Your task to perform on an android device: What time is it? Image 0: 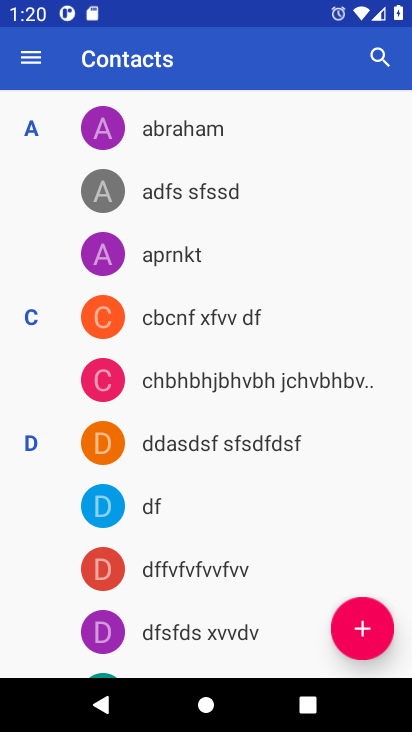
Step 0: press home button
Your task to perform on an android device: What time is it? Image 1: 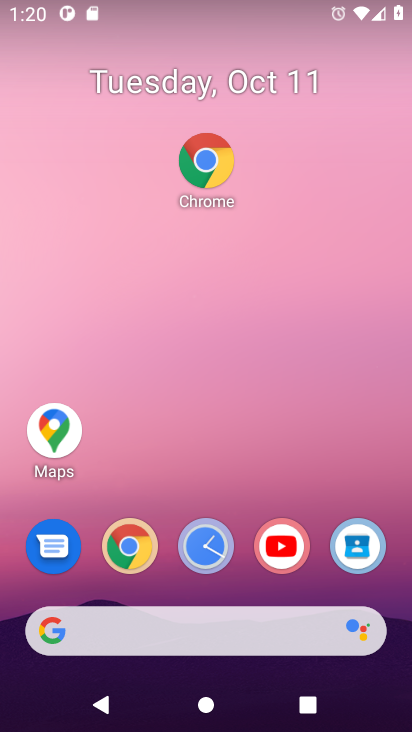
Step 1: drag from (271, 583) to (278, 249)
Your task to perform on an android device: What time is it? Image 2: 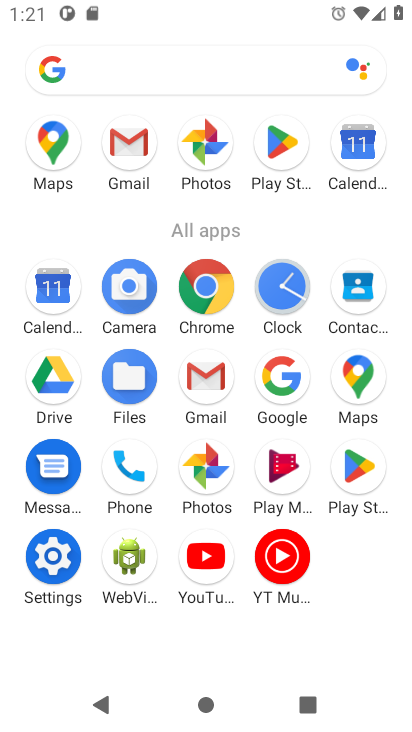
Step 2: click (207, 297)
Your task to perform on an android device: What time is it? Image 3: 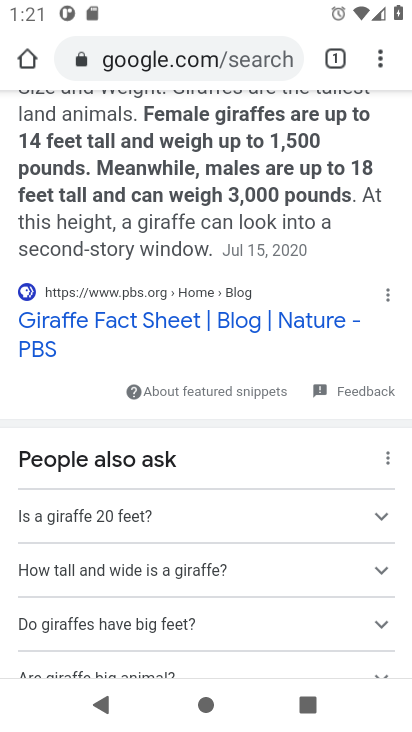
Step 3: click (175, 59)
Your task to perform on an android device: What time is it? Image 4: 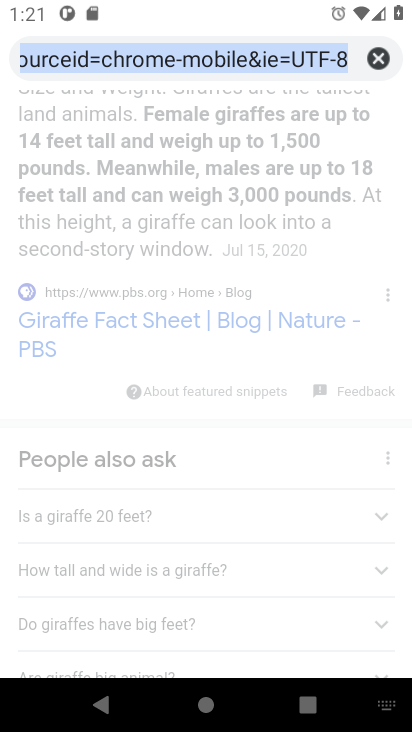
Step 4: type "what time is it?"
Your task to perform on an android device: What time is it? Image 5: 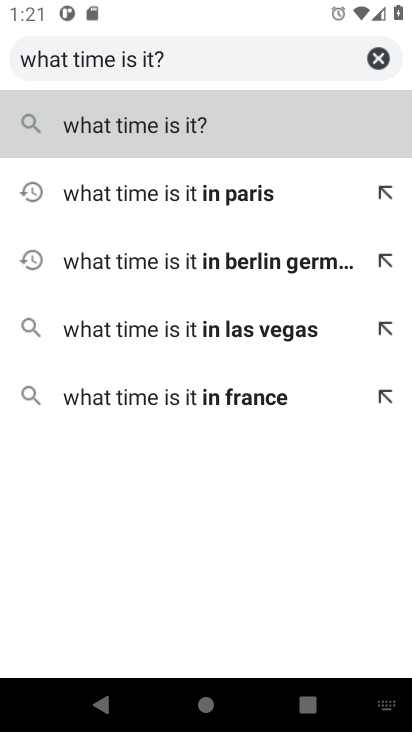
Step 5: press enter
Your task to perform on an android device: What time is it? Image 6: 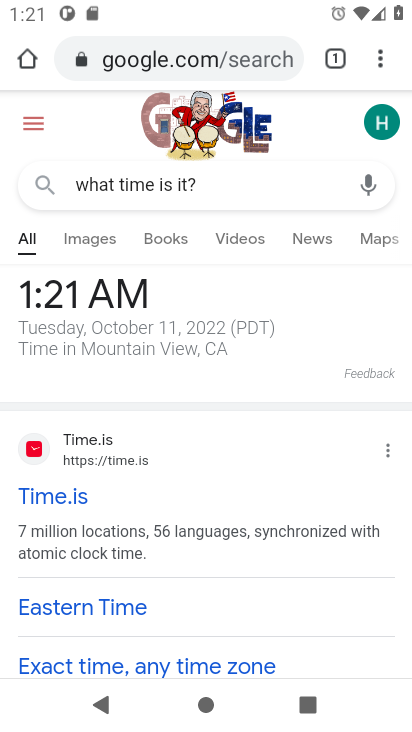
Step 6: task complete